Your task to perform on an android device: snooze an email in the gmail app Image 0: 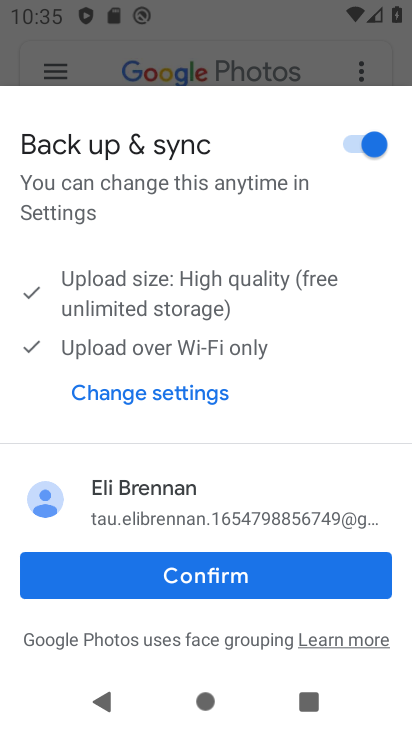
Step 0: press home button
Your task to perform on an android device: snooze an email in the gmail app Image 1: 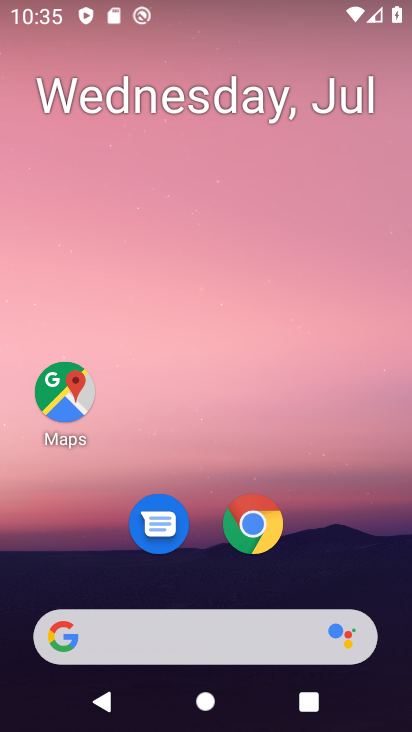
Step 1: drag from (190, 633) to (253, 103)
Your task to perform on an android device: snooze an email in the gmail app Image 2: 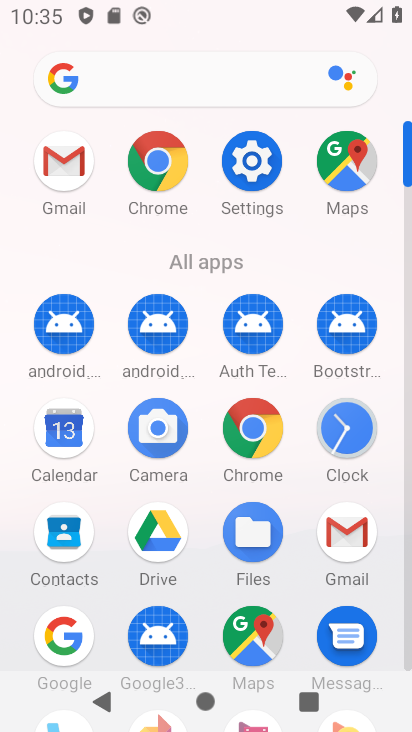
Step 2: click (70, 170)
Your task to perform on an android device: snooze an email in the gmail app Image 3: 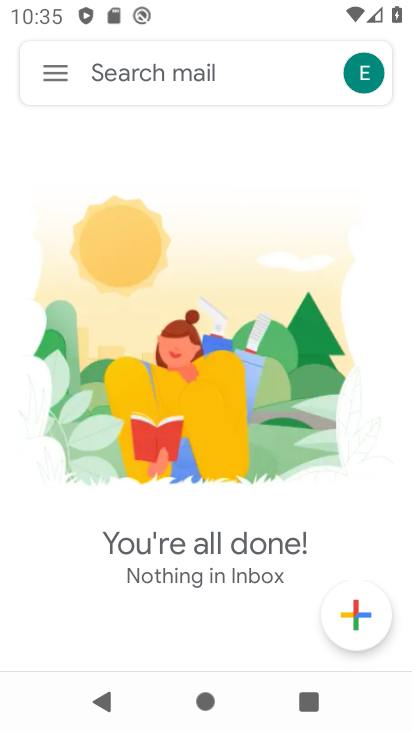
Step 3: task complete